Your task to perform on an android device: open app "Nova Launcher" Image 0: 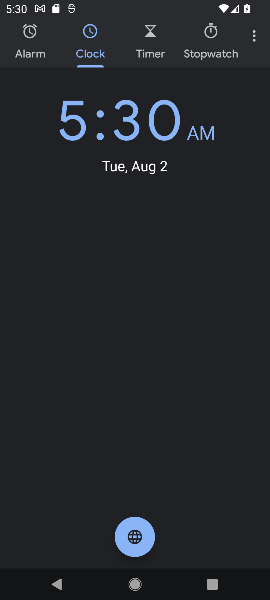
Step 0: press home button
Your task to perform on an android device: open app "Nova Launcher" Image 1: 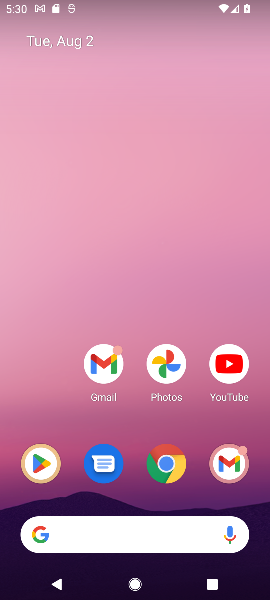
Step 1: click (48, 464)
Your task to perform on an android device: open app "Nova Launcher" Image 2: 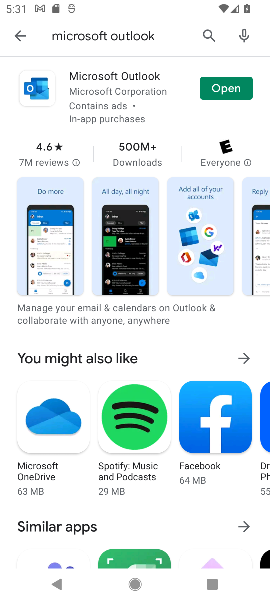
Step 2: click (200, 34)
Your task to perform on an android device: open app "Nova Launcher" Image 3: 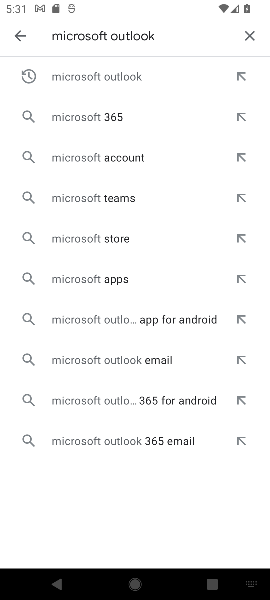
Step 3: click (248, 33)
Your task to perform on an android device: open app "Nova Launcher" Image 4: 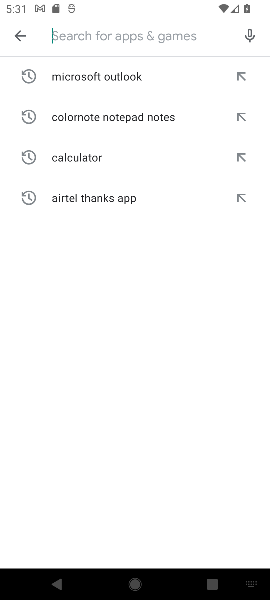
Step 4: type "Nova Launcher"
Your task to perform on an android device: open app "Nova Launcher" Image 5: 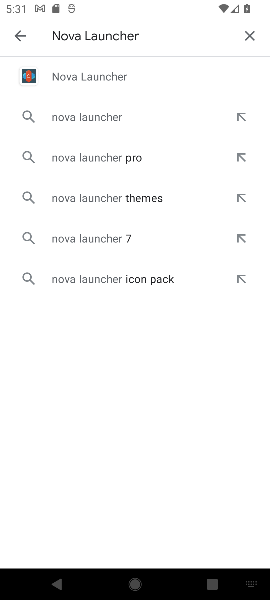
Step 5: click (107, 79)
Your task to perform on an android device: open app "Nova Launcher" Image 6: 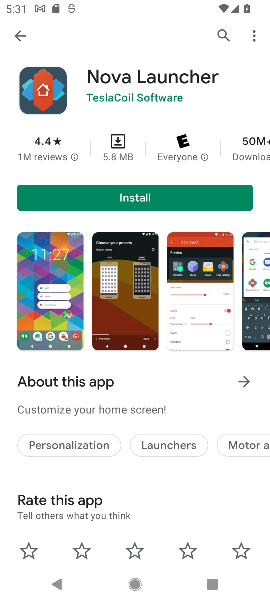
Step 6: task complete